Your task to perform on an android device: turn off location Image 0: 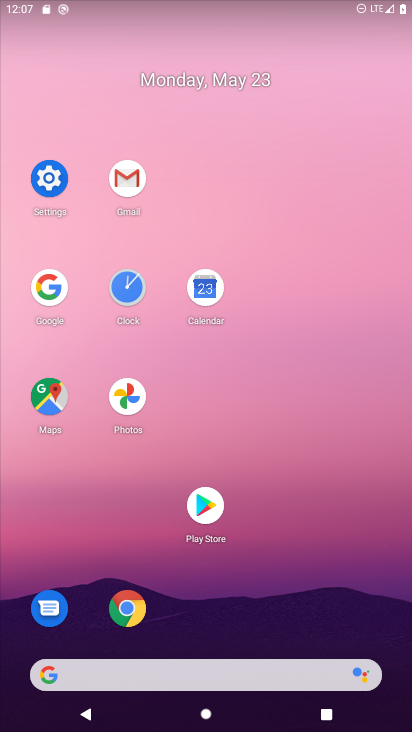
Step 0: click (52, 184)
Your task to perform on an android device: turn off location Image 1: 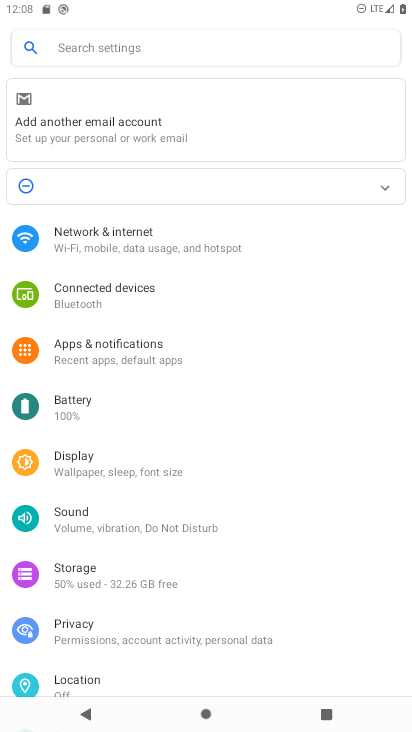
Step 1: click (110, 679)
Your task to perform on an android device: turn off location Image 2: 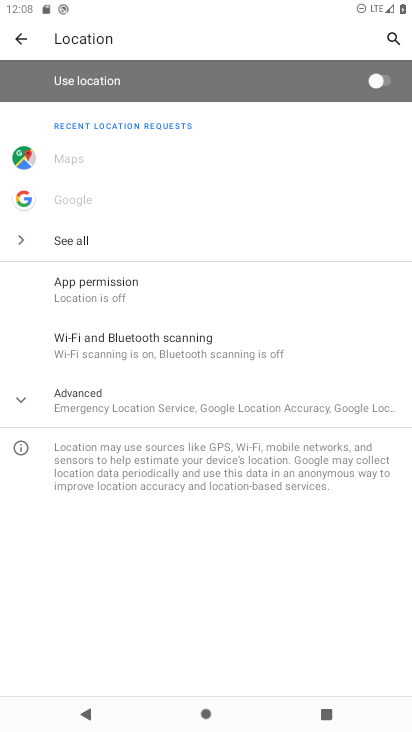
Step 2: task complete